Your task to perform on an android device: Open the stopwatch Image 0: 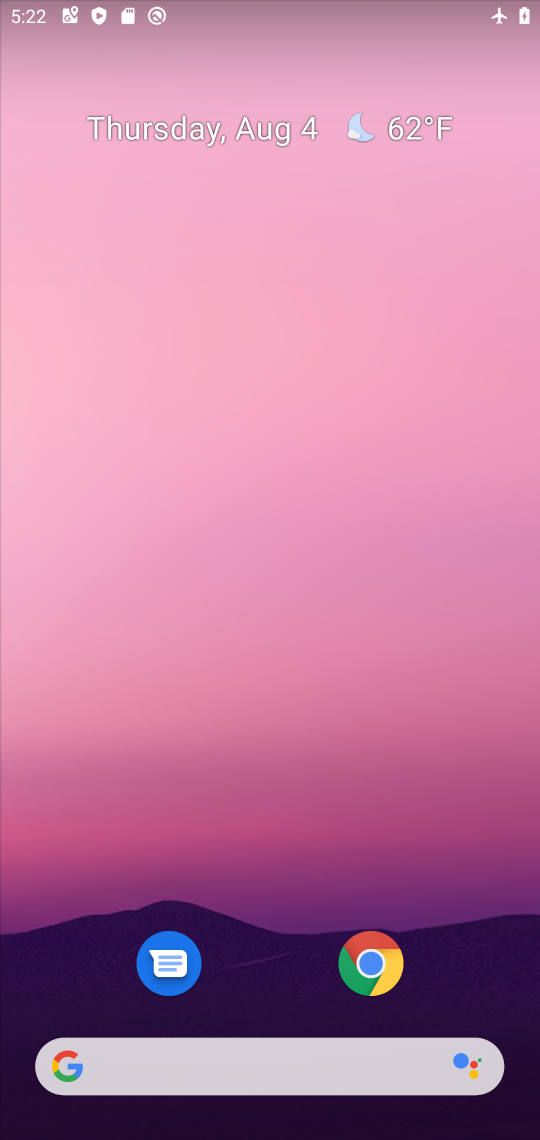
Step 0: drag from (279, 886) to (215, 263)
Your task to perform on an android device: Open the stopwatch Image 1: 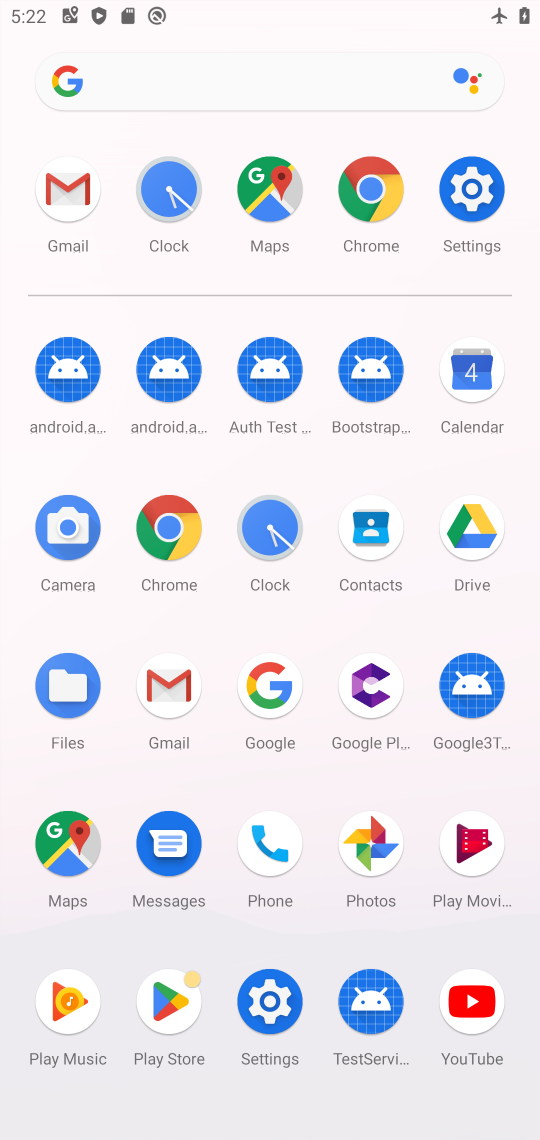
Step 1: click (268, 524)
Your task to perform on an android device: Open the stopwatch Image 2: 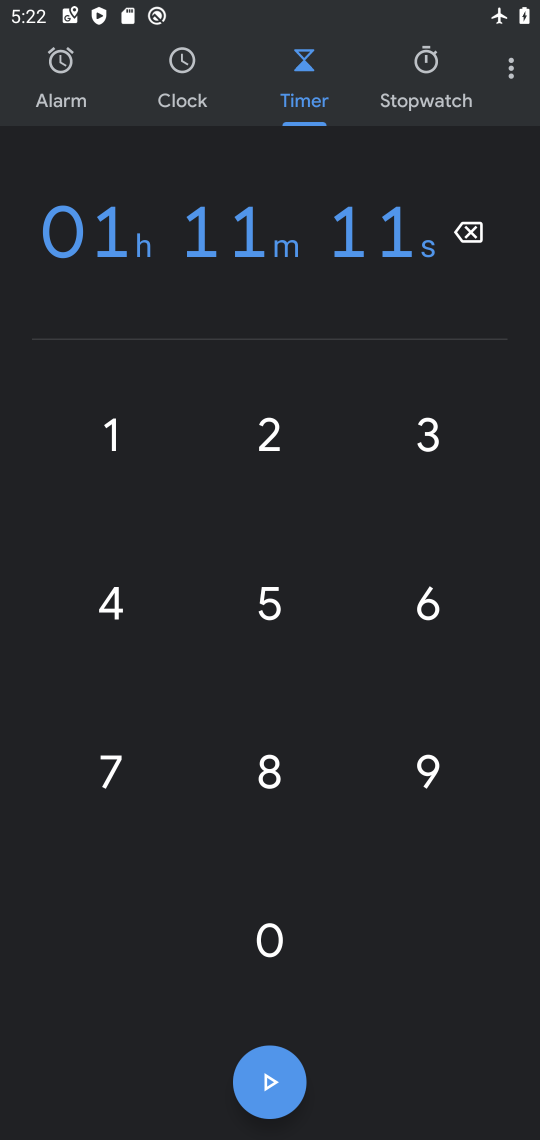
Step 2: click (422, 62)
Your task to perform on an android device: Open the stopwatch Image 3: 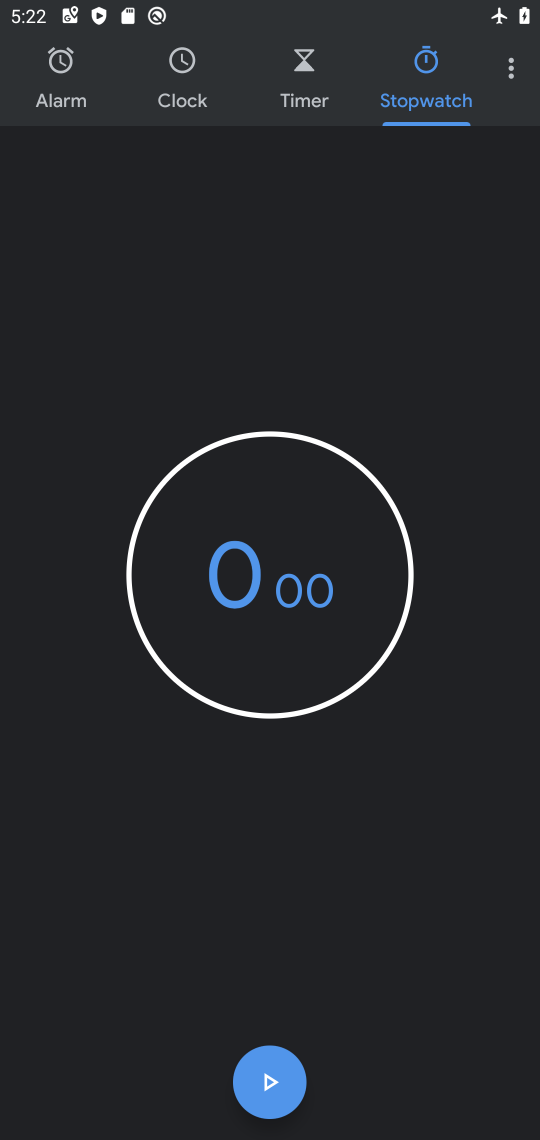
Step 3: task complete